Your task to perform on an android device: Go to CNN.com Image 0: 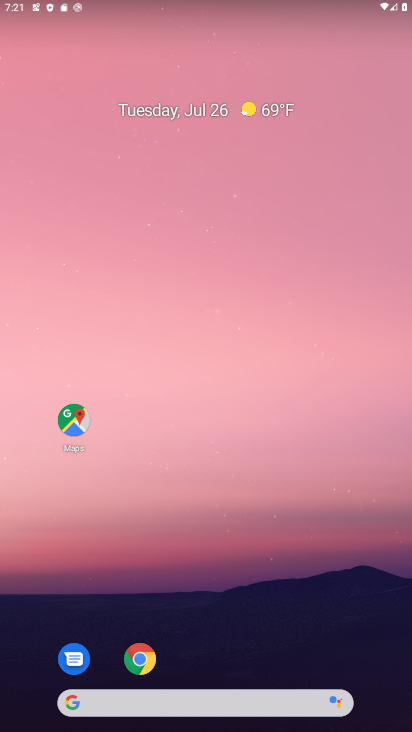
Step 0: click (162, 699)
Your task to perform on an android device: Go to CNN.com Image 1: 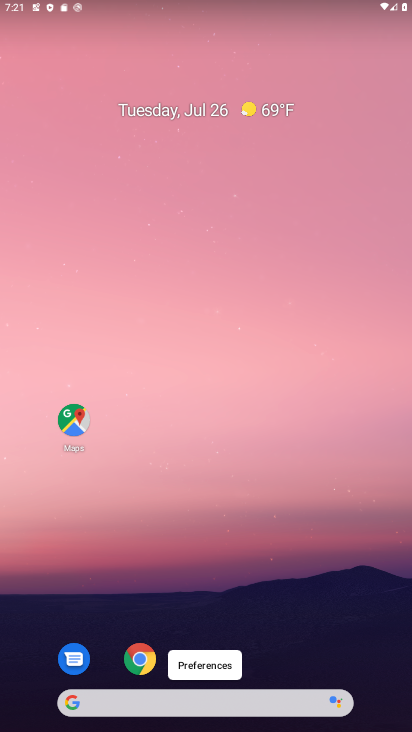
Step 1: click (130, 708)
Your task to perform on an android device: Go to CNN.com Image 2: 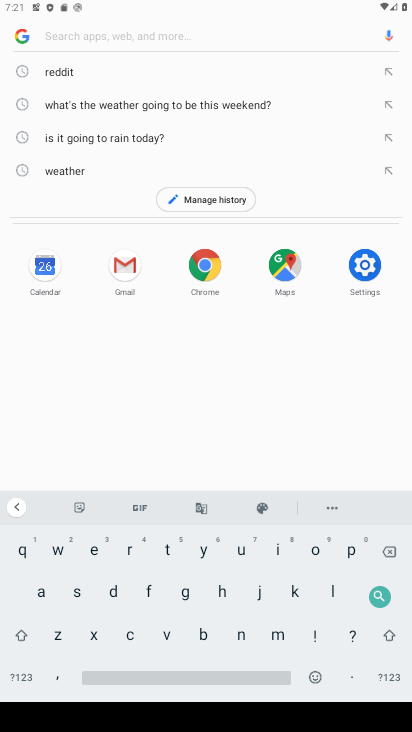
Step 2: click (128, 629)
Your task to perform on an android device: Go to CNN.com Image 3: 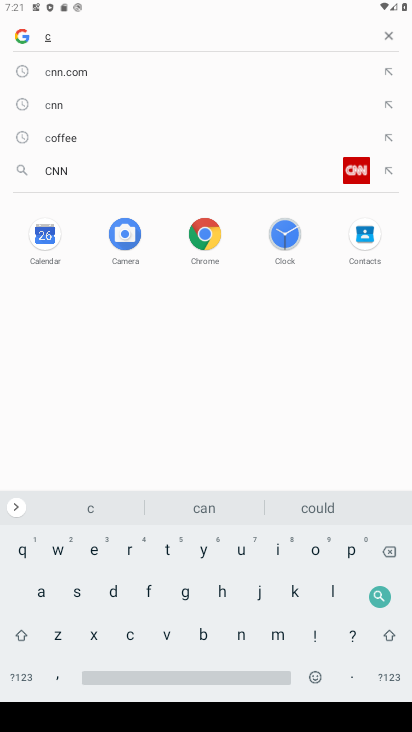
Step 3: click (68, 74)
Your task to perform on an android device: Go to CNN.com Image 4: 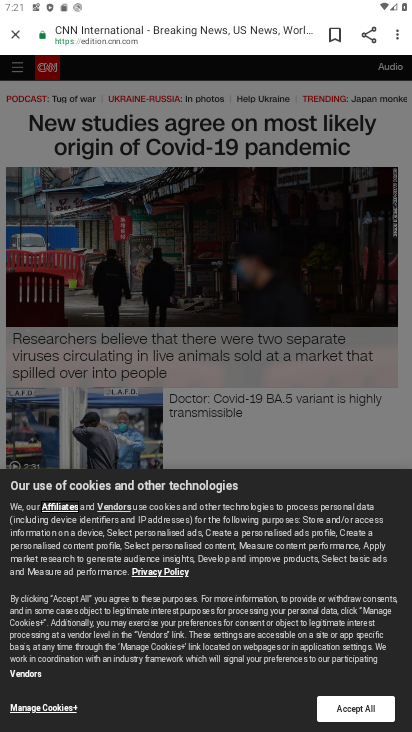
Step 4: task complete